Your task to perform on an android device: open app "PUBG MOBILE" (install if not already installed) and enter user name: "phenomenologically@gmail.com" and password: "artillery" Image 0: 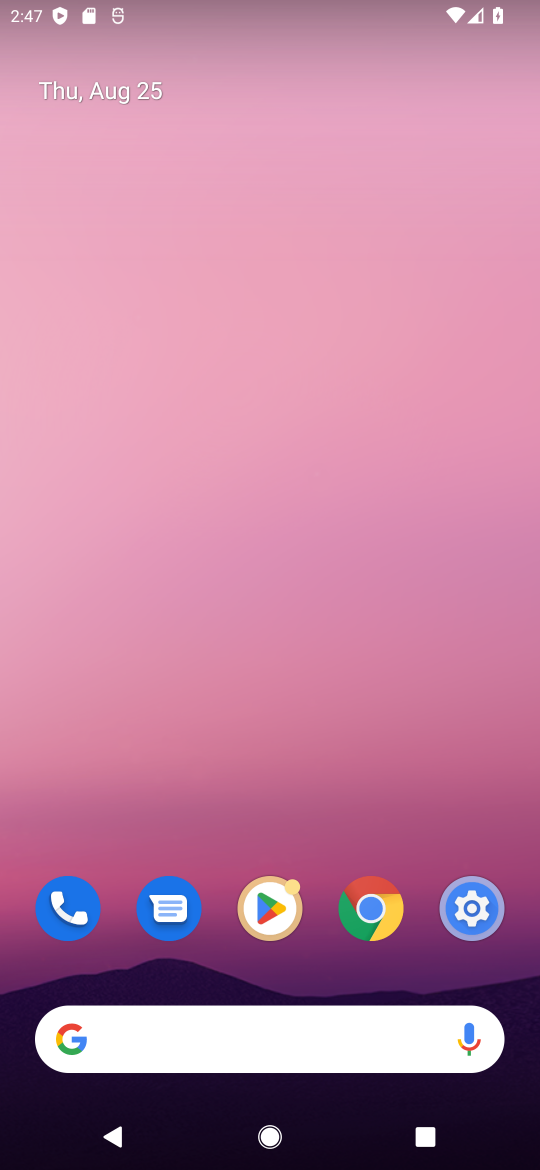
Step 0: click (255, 902)
Your task to perform on an android device: open app "PUBG MOBILE" (install if not already installed) and enter user name: "phenomenologically@gmail.com" and password: "artillery" Image 1: 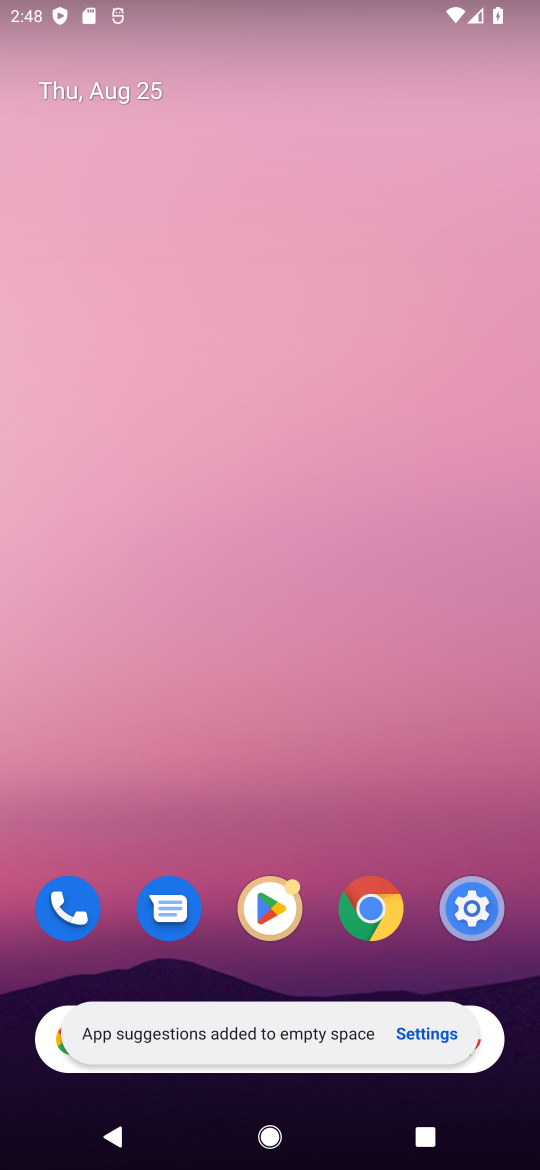
Step 1: click (268, 877)
Your task to perform on an android device: open app "PUBG MOBILE" (install if not already installed) and enter user name: "phenomenologically@gmail.com" and password: "artillery" Image 2: 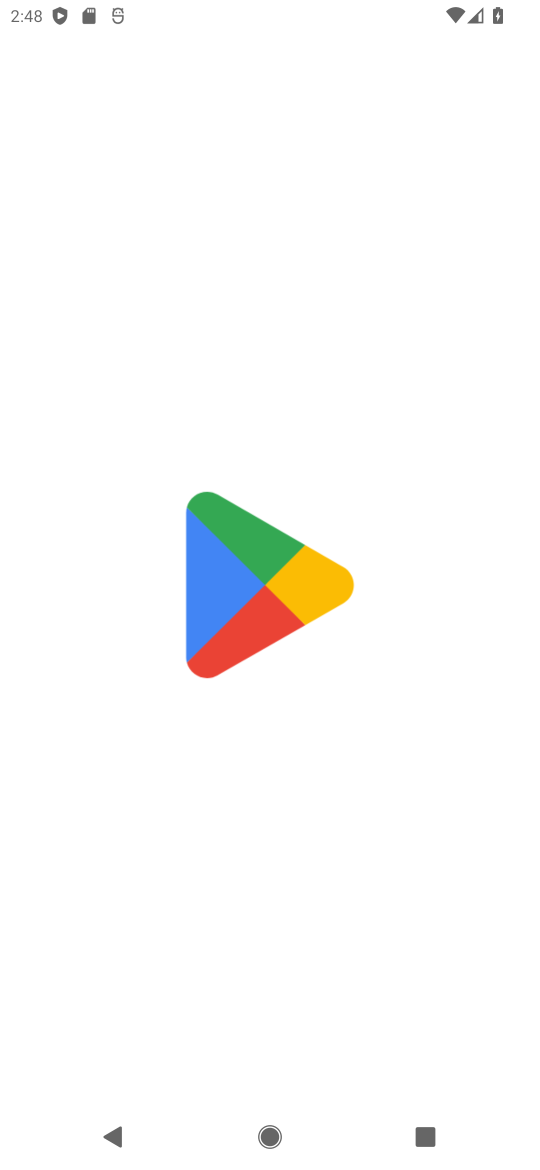
Step 2: click (276, 913)
Your task to perform on an android device: open app "PUBG MOBILE" (install if not already installed) and enter user name: "phenomenologically@gmail.com" and password: "artillery" Image 3: 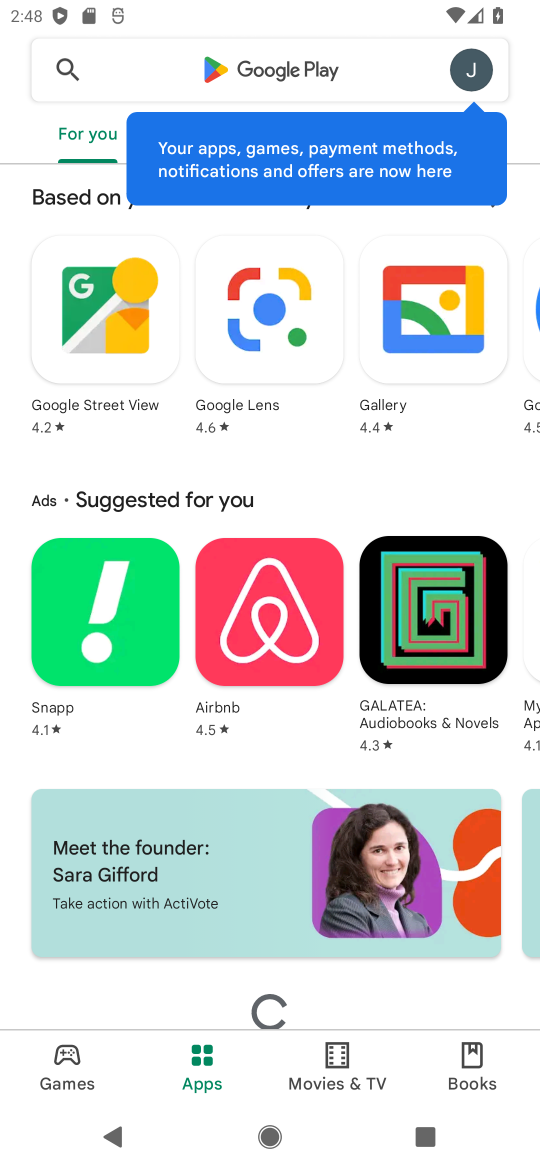
Step 3: click (315, 63)
Your task to perform on an android device: open app "PUBG MOBILE" (install if not already installed) and enter user name: "phenomenologically@gmail.com" and password: "artillery" Image 4: 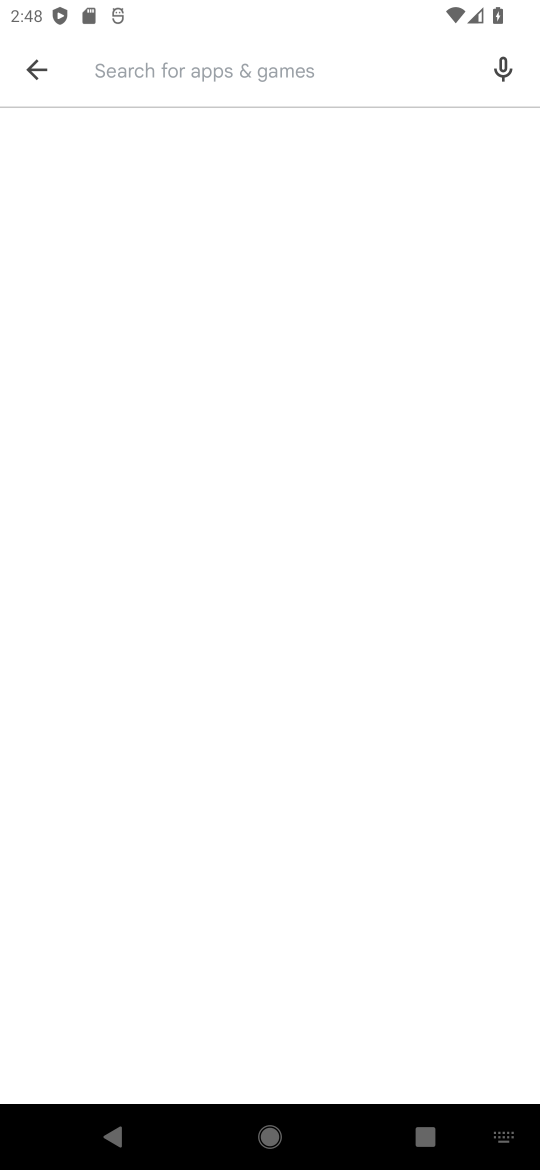
Step 4: drag from (235, 1054) to (413, 923)
Your task to perform on an android device: open app "PUBG MOBILE" (install if not already installed) and enter user name: "phenomenologically@gmail.com" and password: "artillery" Image 5: 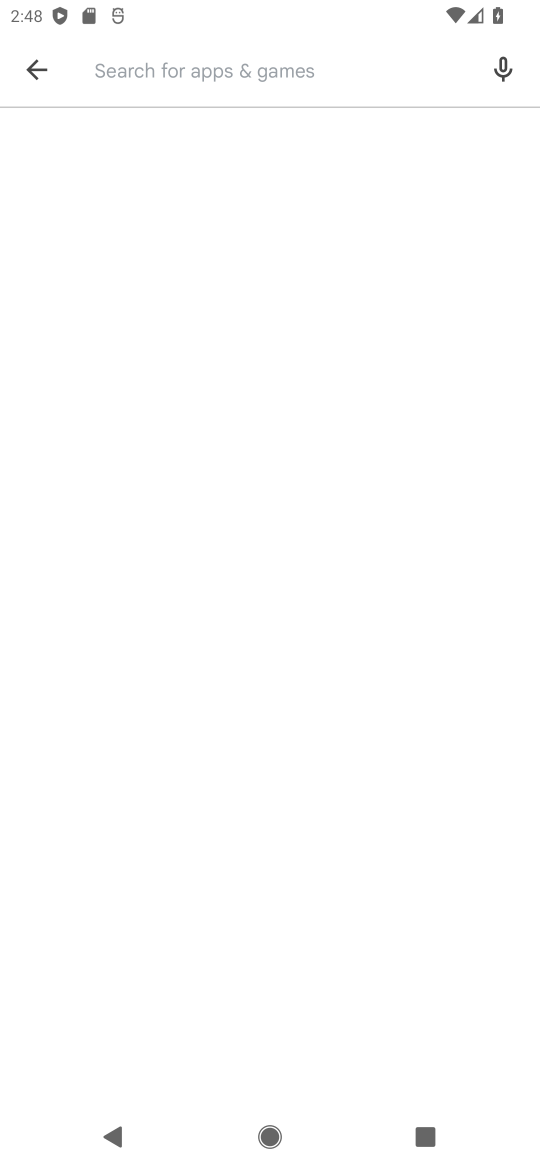
Step 5: type "PUBG MOBILE"
Your task to perform on an android device: open app "PUBG MOBILE" (install if not already installed) and enter user name: "phenomenologically@gmail.com" and password: "artillery" Image 6: 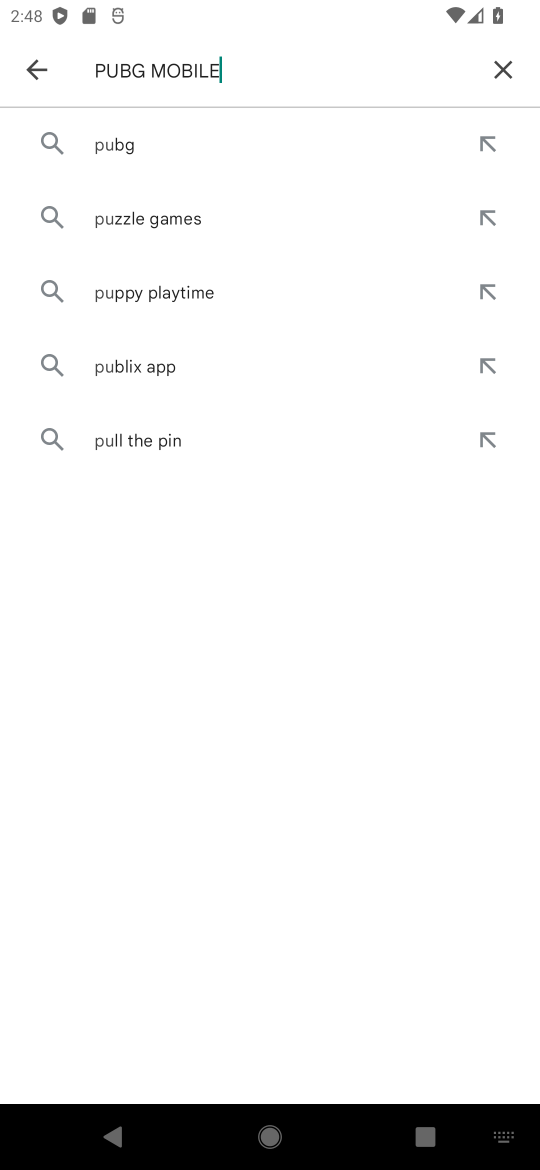
Step 6: type ""
Your task to perform on an android device: open app "PUBG MOBILE" (install if not already installed) and enter user name: "phenomenologically@gmail.com" and password: "artillery" Image 7: 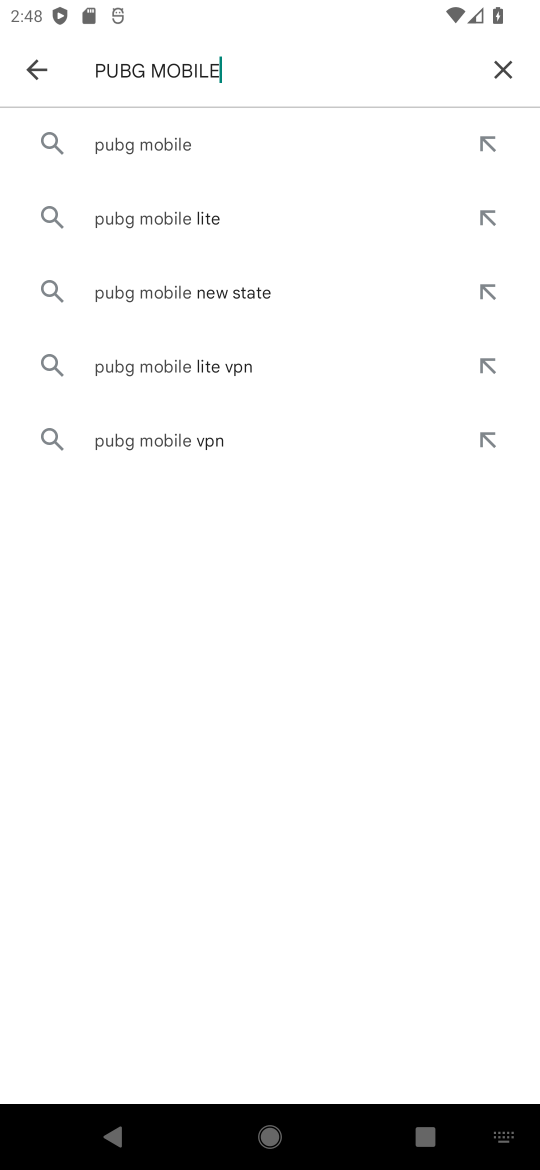
Step 7: click (139, 139)
Your task to perform on an android device: open app "PUBG MOBILE" (install if not already installed) and enter user name: "phenomenologically@gmail.com" and password: "artillery" Image 8: 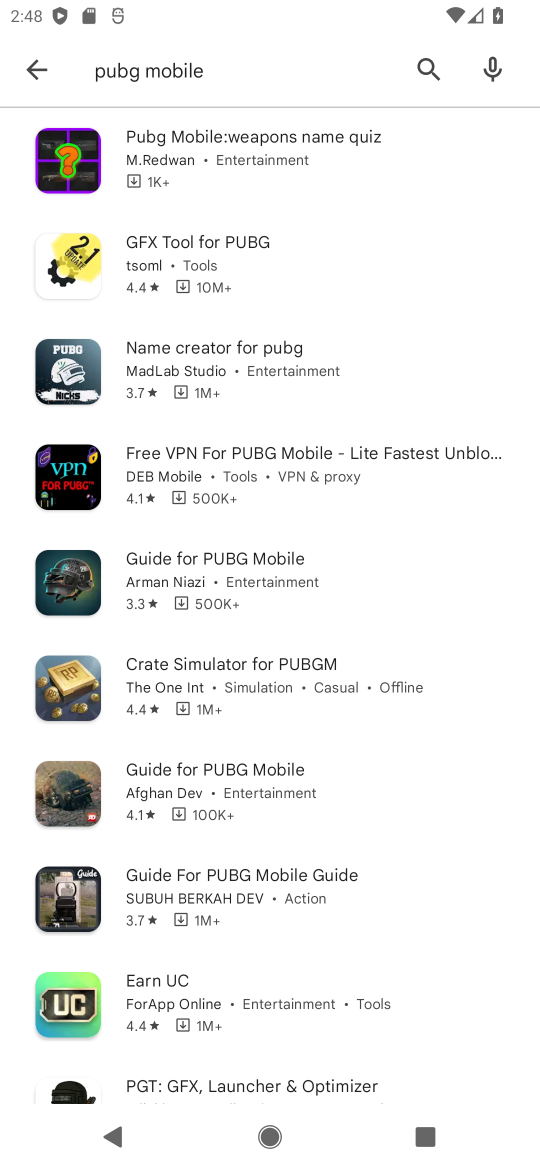
Step 8: task complete